Your task to perform on an android device: Open Reddit.com Image 0: 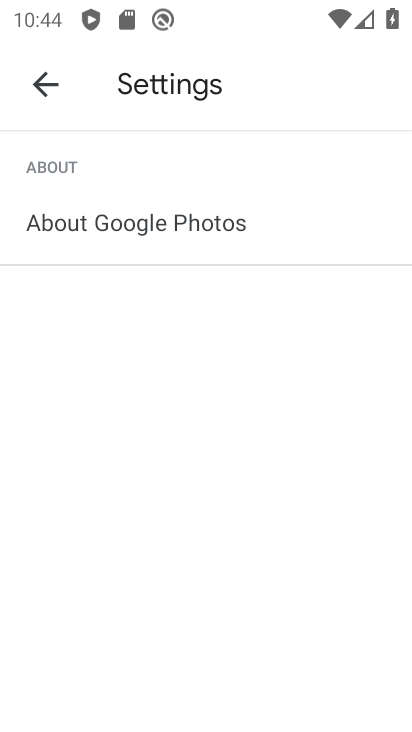
Step 0: drag from (347, 499) to (383, 419)
Your task to perform on an android device: Open Reddit.com Image 1: 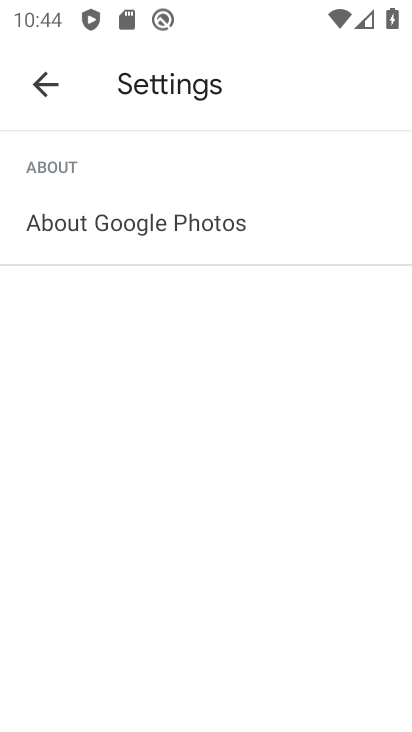
Step 1: press home button
Your task to perform on an android device: Open Reddit.com Image 2: 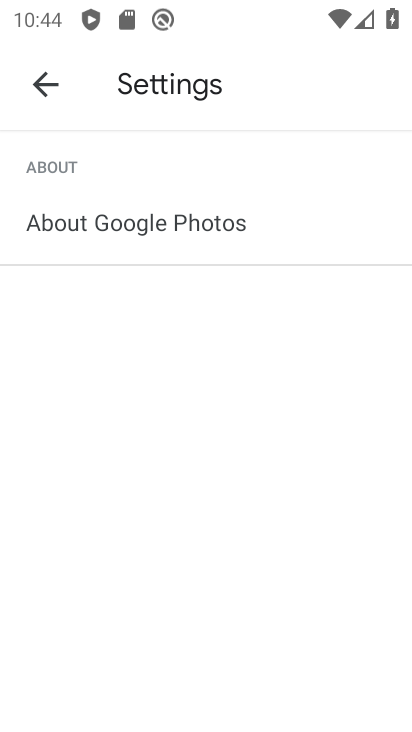
Step 2: drag from (383, 419) to (410, 306)
Your task to perform on an android device: Open Reddit.com Image 3: 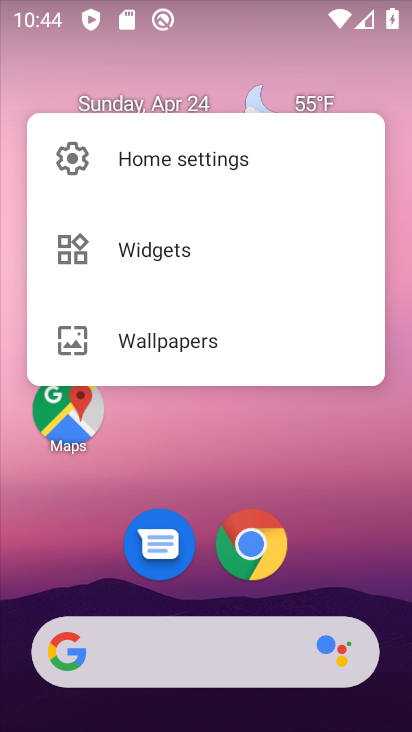
Step 3: click (267, 536)
Your task to perform on an android device: Open Reddit.com Image 4: 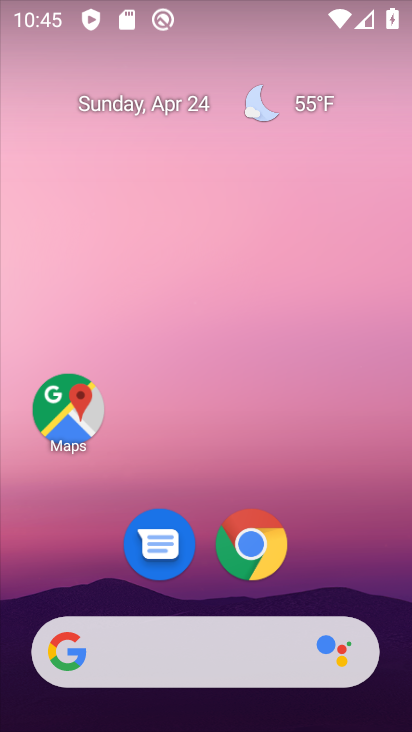
Step 4: click (255, 533)
Your task to perform on an android device: Open Reddit.com Image 5: 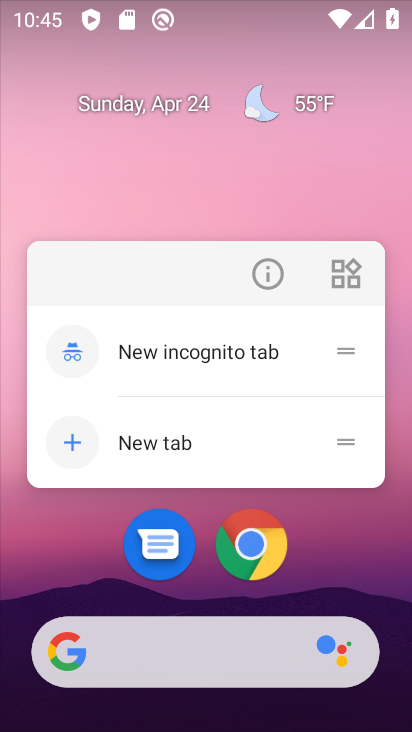
Step 5: click (255, 547)
Your task to perform on an android device: Open Reddit.com Image 6: 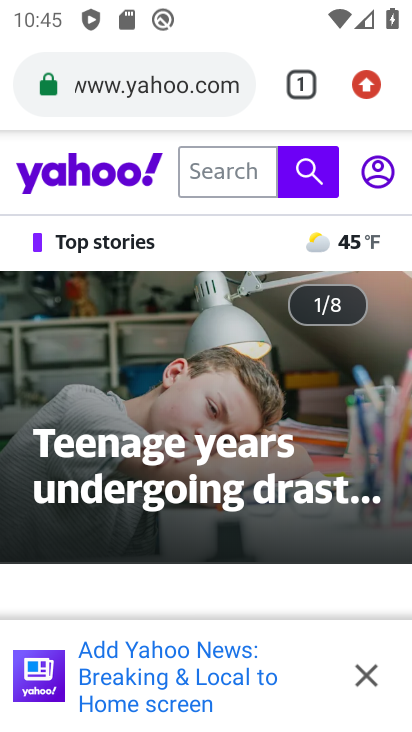
Step 6: click (205, 92)
Your task to perform on an android device: Open Reddit.com Image 7: 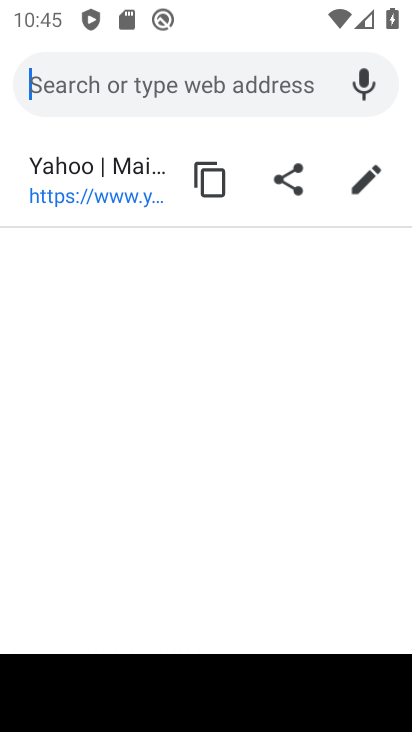
Step 7: type "reddit.com"
Your task to perform on an android device: Open Reddit.com Image 8: 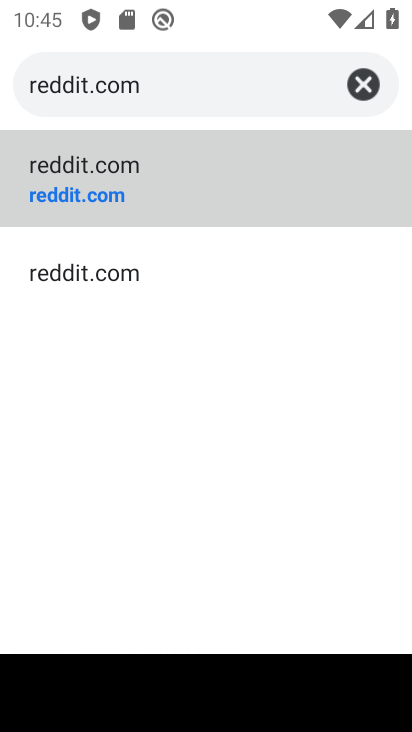
Step 8: click (81, 169)
Your task to perform on an android device: Open Reddit.com Image 9: 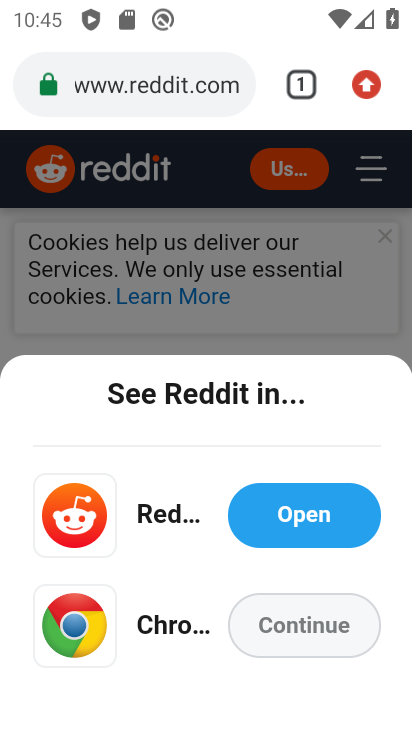
Step 9: click (300, 336)
Your task to perform on an android device: Open Reddit.com Image 10: 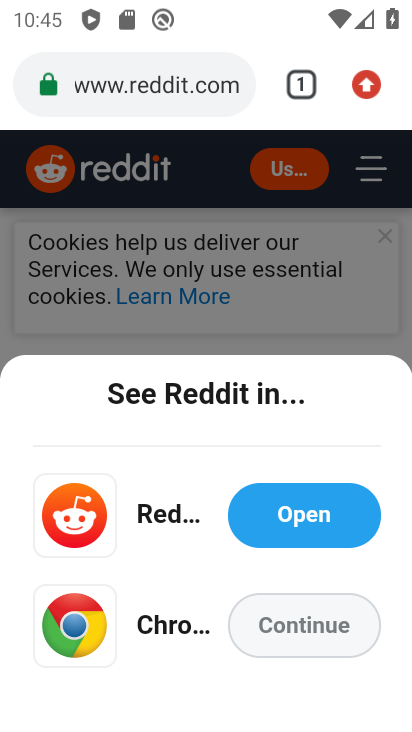
Step 10: task complete